Your task to perform on an android device: Go to Android settings Image 0: 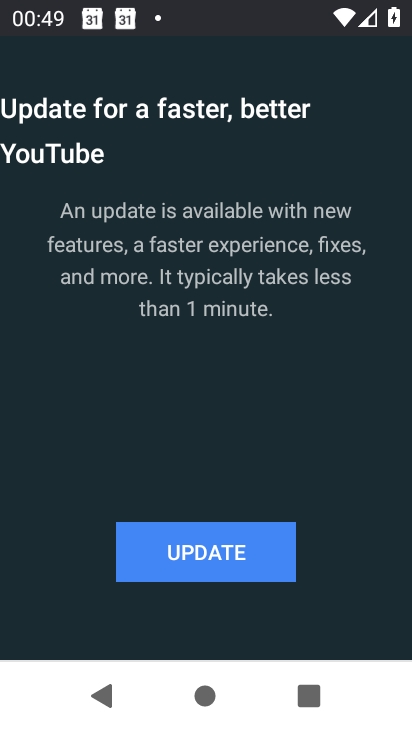
Step 0: press back button
Your task to perform on an android device: Go to Android settings Image 1: 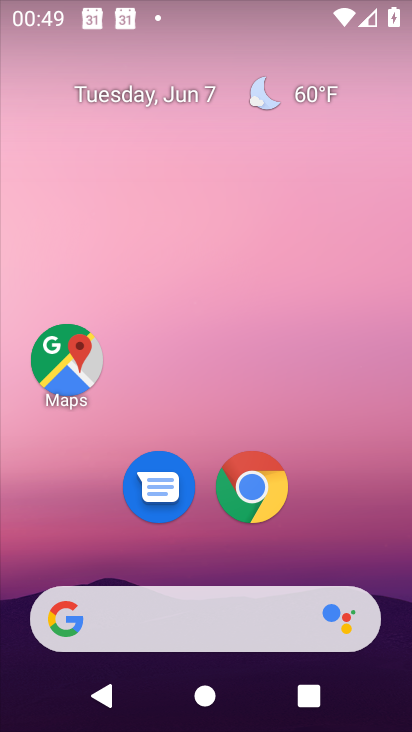
Step 1: drag from (348, 553) to (285, 219)
Your task to perform on an android device: Go to Android settings Image 2: 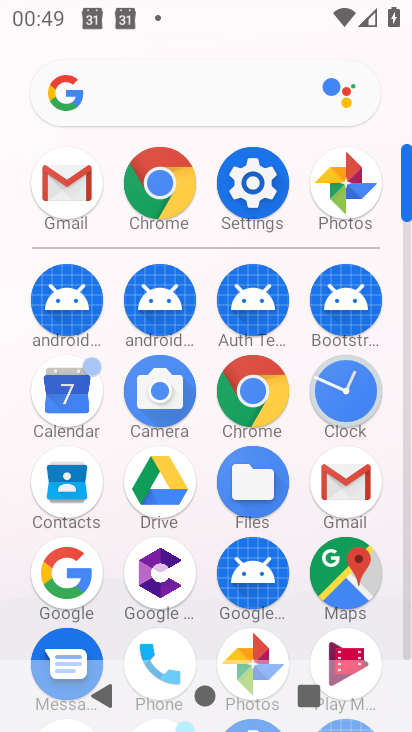
Step 2: click (253, 156)
Your task to perform on an android device: Go to Android settings Image 3: 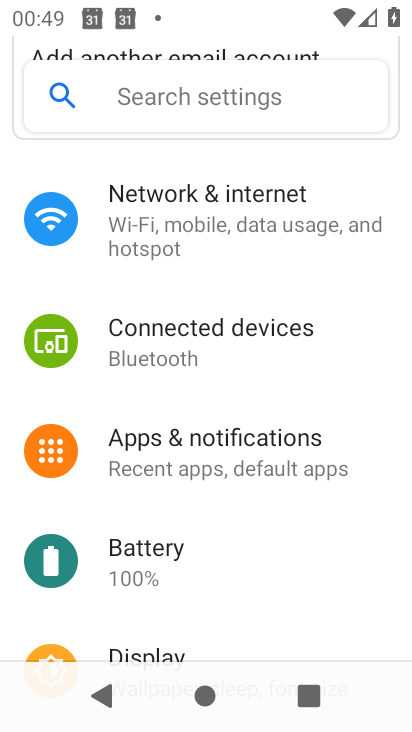
Step 3: task complete